Your task to perform on an android device: change the upload size in google photos Image 0: 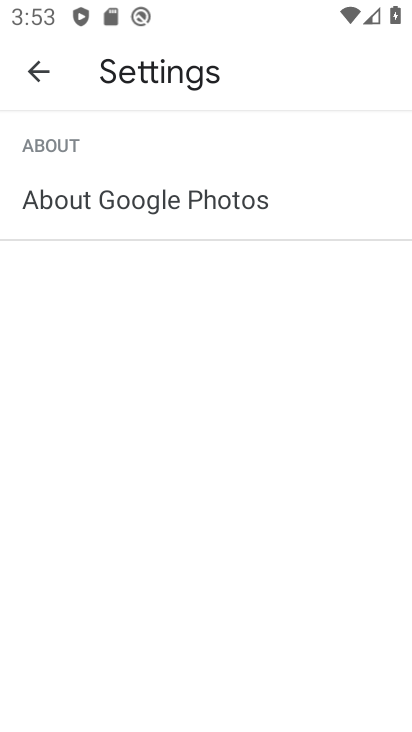
Step 0: press home button
Your task to perform on an android device: change the upload size in google photos Image 1: 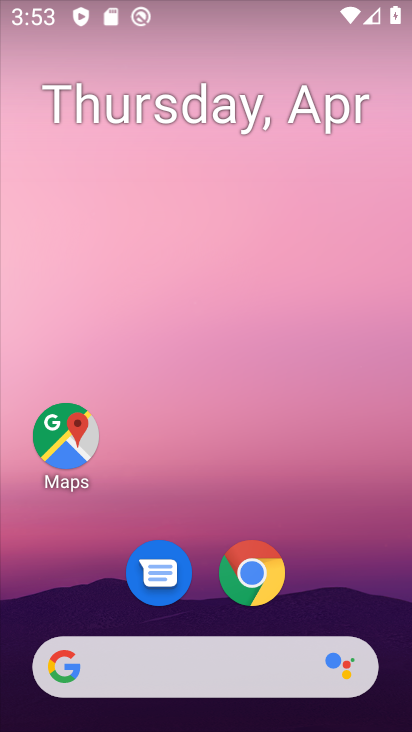
Step 1: drag from (247, 711) to (318, 155)
Your task to perform on an android device: change the upload size in google photos Image 2: 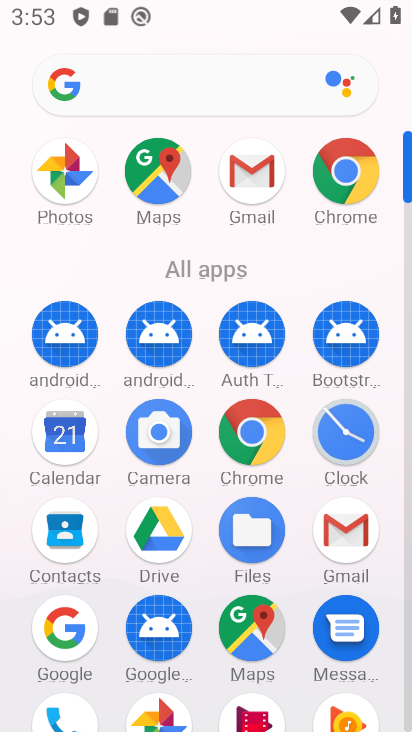
Step 2: drag from (206, 580) to (202, 470)
Your task to perform on an android device: change the upload size in google photos Image 3: 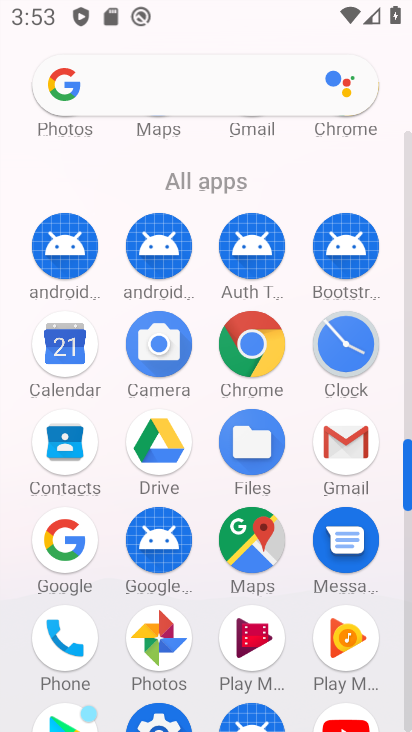
Step 3: click (160, 612)
Your task to perform on an android device: change the upload size in google photos Image 4: 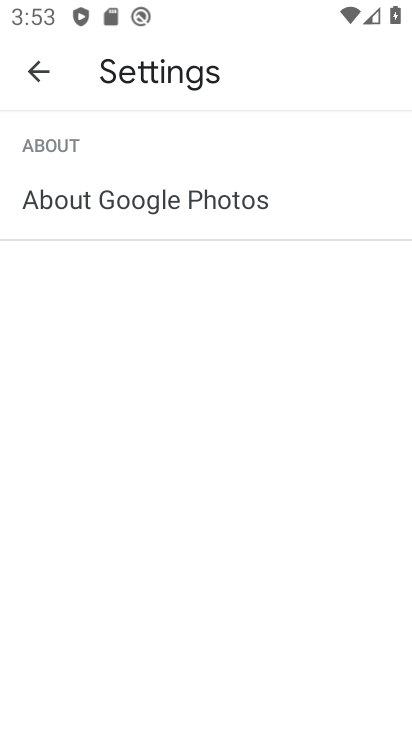
Step 4: click (43, 83)
Your task to perform on an android device: change the upload size in google photos Image 5: 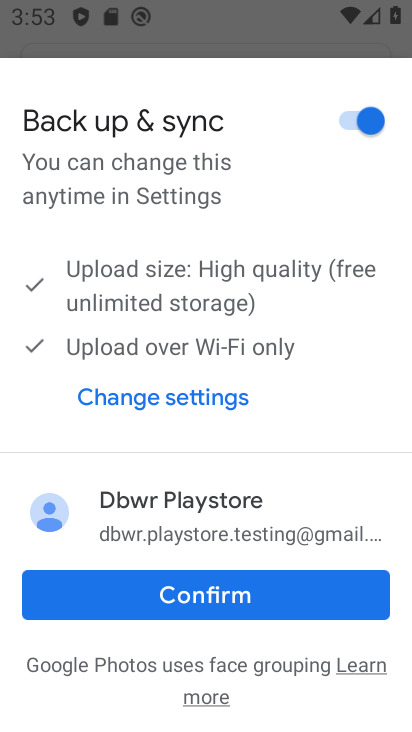
Step 5: click (203, 611)
Your task to perform on an android device: change the upload size in google photos Image 6: 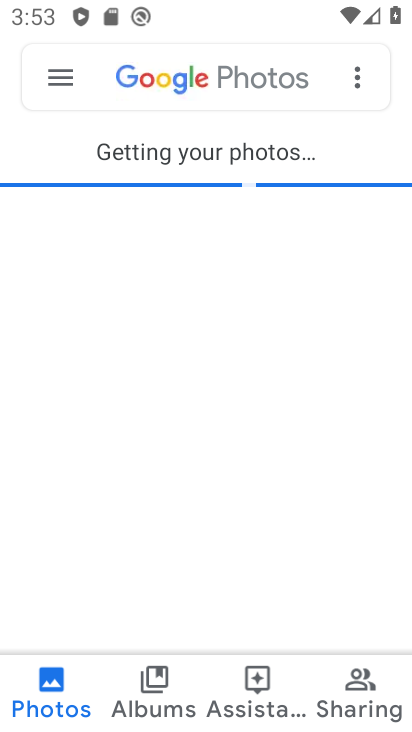
Step 6: click (67, 76)
Your task to perform on an android device: change the upload size in google photos Image 7: 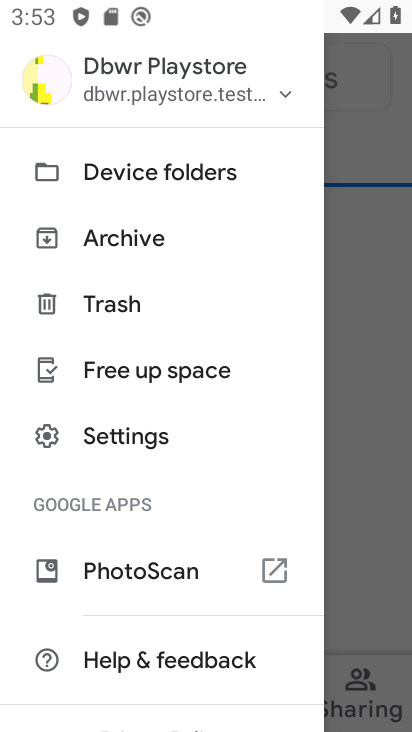
Step 7: click (128, 433)
Your task to perform on an android device: change the upload size in google photos Image 8: 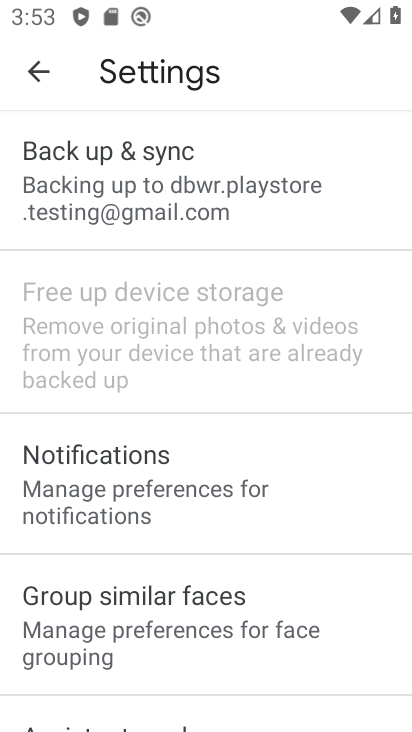
Step 8: click (150, 207)
Your task to perform on an android device: change the upload size in google photos Image 9: 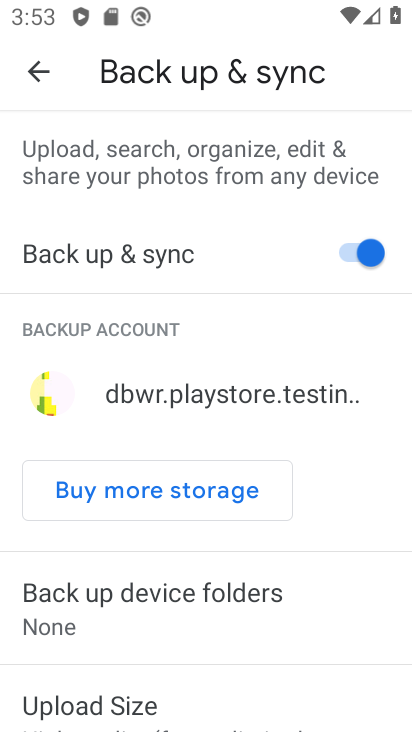
Step 9: drag from (149, 593) to (194, 360)
Your task to perform on an android device: change the upload size in google photos Image 10: 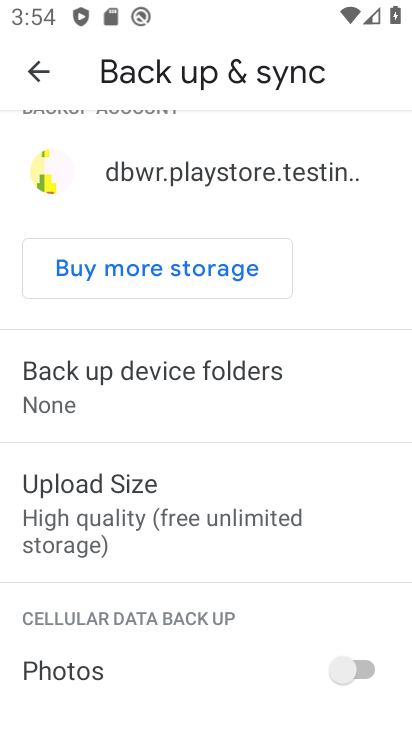
Step 10: click (134, 494)
Your task to perform on an android device: change the upload size in google photos Image 11: 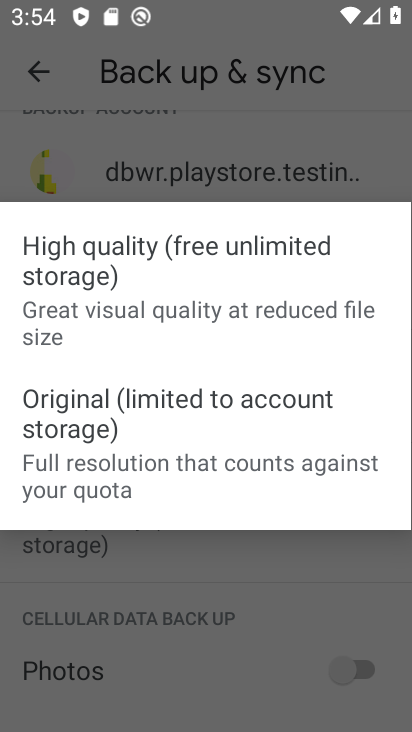
Step 11: task complete